Your task to perform on an android device: Open settings Image 0: 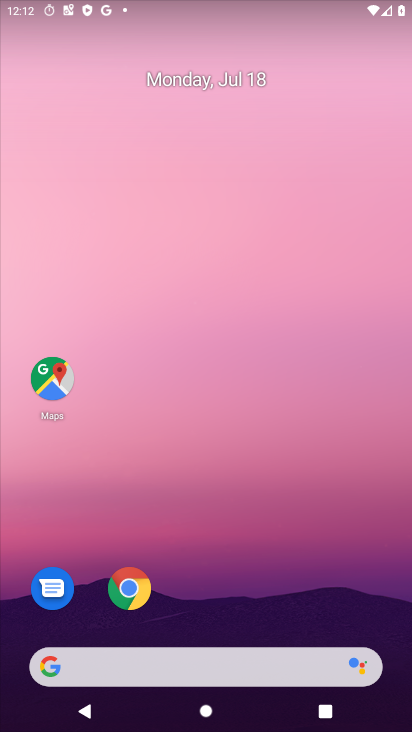
Step 0: drag from (313, 519) to (357, 284)
Your task to perform on an android device: Open settings Image 1: 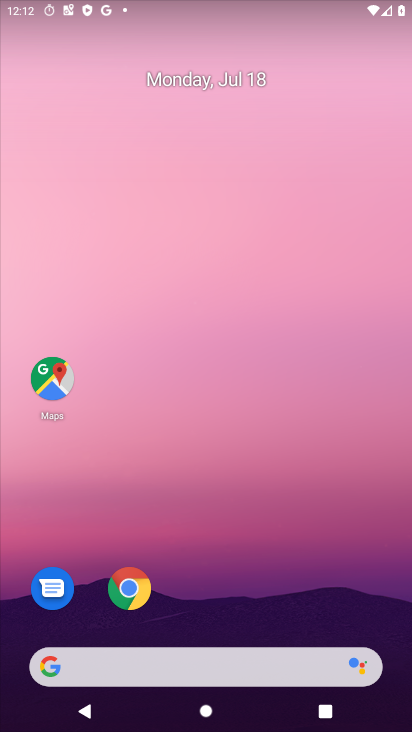
Step 1: drag from (242, 487) to (199, 71)
Your task to perform on an android device: Open settings Image 2: 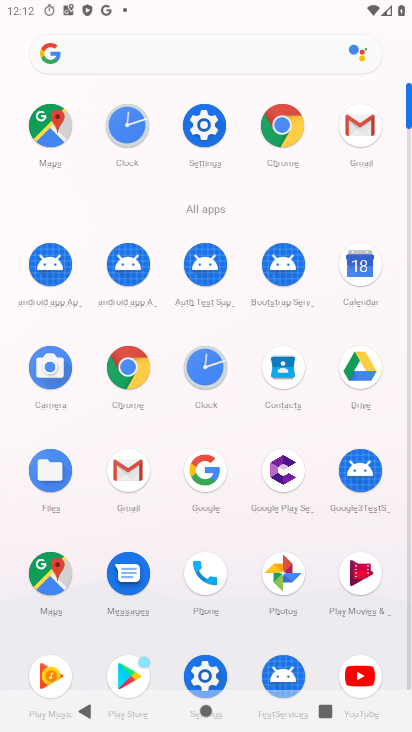
Step 2: click (207, 662)
Your task to perform on an android device: Open settings Image 3: 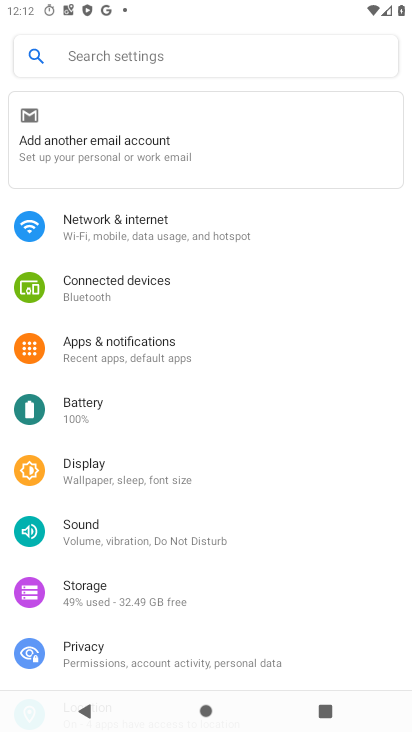
Step 3: task complete